Your task to perform on an android device: What's on my calendar tomorrow? Image 0: 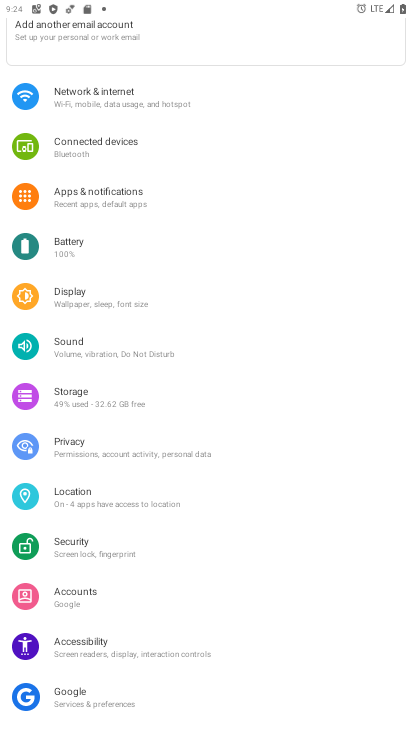
Step 0: press home button
Your task to perform on an android device: What's on my calendar tomorrow? Image 1: 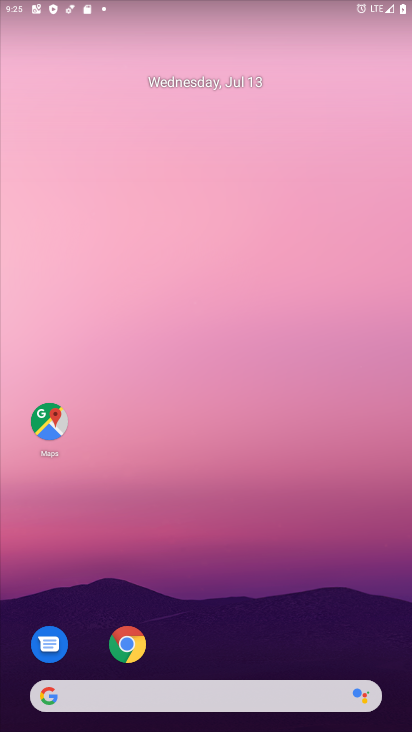
Step 1: drag from (238, 729) to (259, 109)
Your task to perform on an android device: What's on my calendar tomorrow? Image 2: 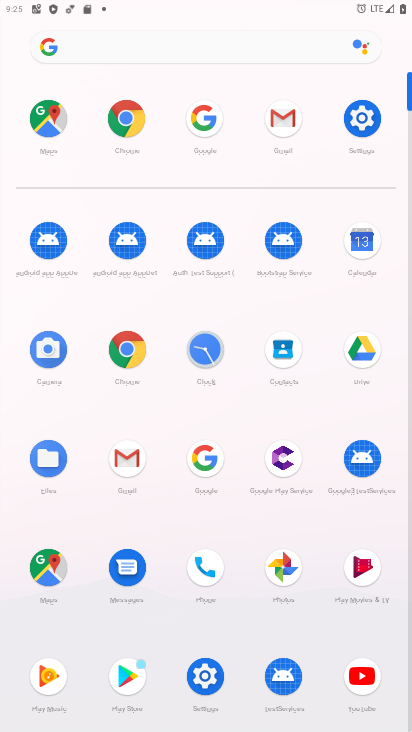
Step 2: click (362, 238)
Your task to perform on an android device: What's on my calendar tomorrow? Image 3: 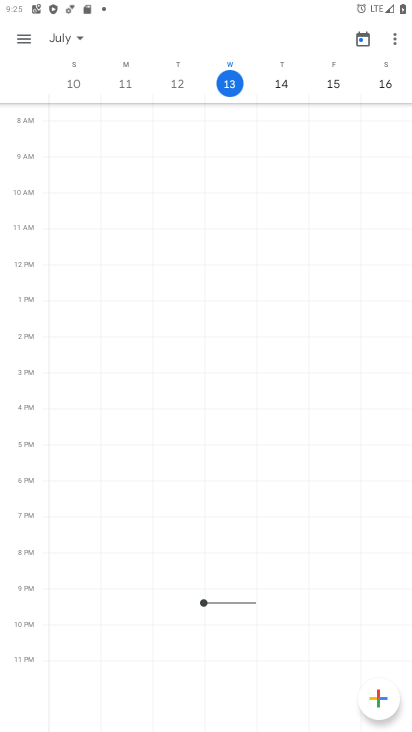
Step 3: click (277, 85)
Your task to perform on an android device: What's on my calendar tomorrow? Image 4: 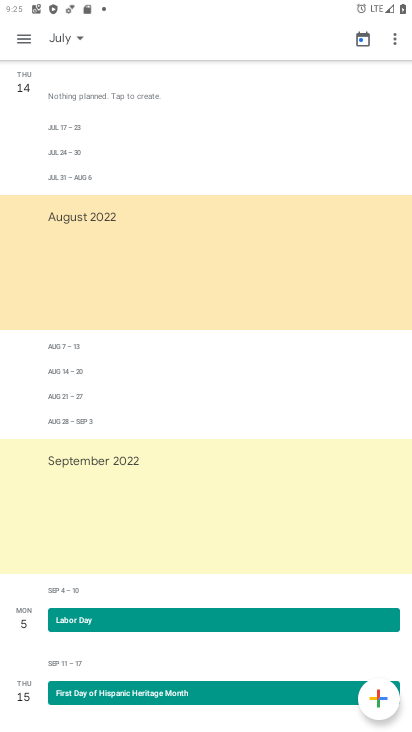
Step 4: click (277, 70)
Your task to perform on an android device: What's on my calendar tomorrow? Image 5: 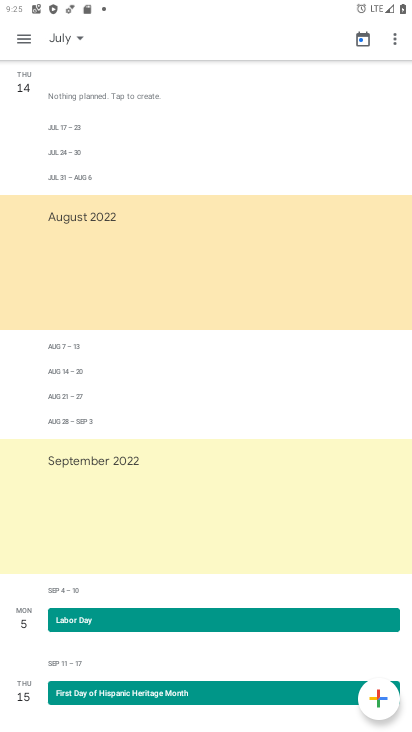
Step 5: task complete